Your task to perform on an android device: Open wifi settings Image 0: 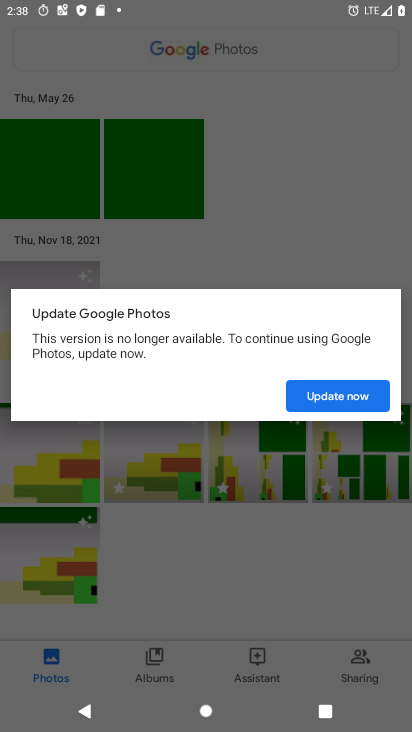
Step 0: press home button
Your task to perform on an android device: Open wifi settings Image 1: 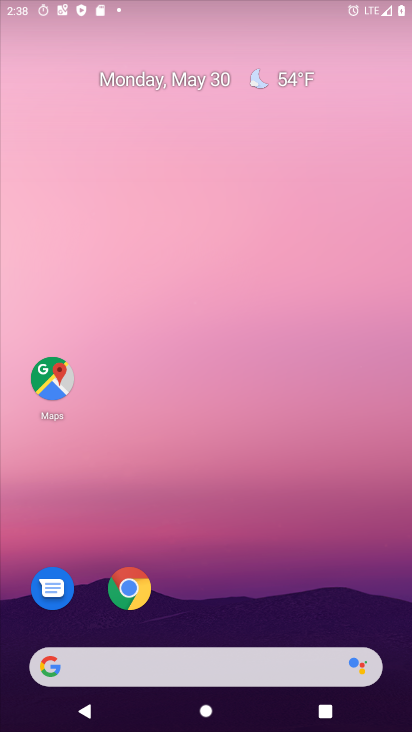
Step 1: drag from (256, 541) to (320, 54)
Your task to perform on an android device: Open wifi settings Image 2: 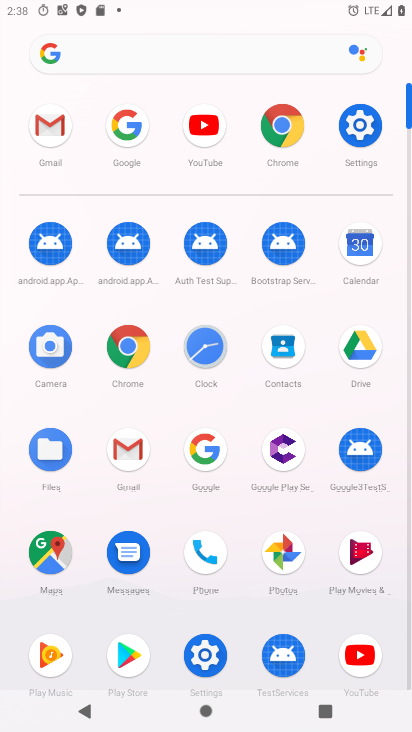
Step 2: click (354, 128)
Your task to perform on an android device: Open wifi settings Image 3: 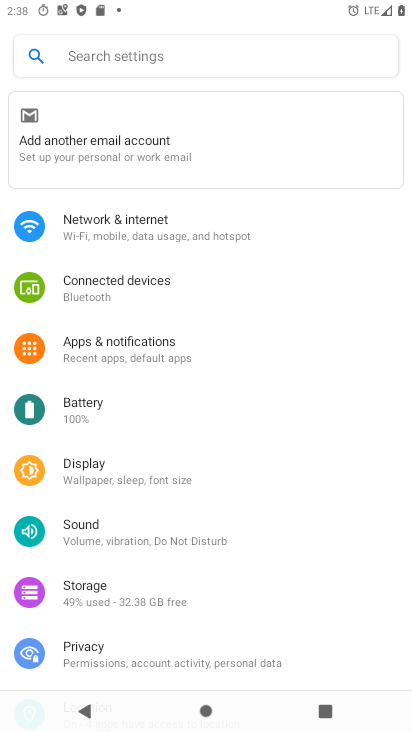
Step 3: click (144, 229)
Your task to perform on an android device: Open wifi settings Image 4: 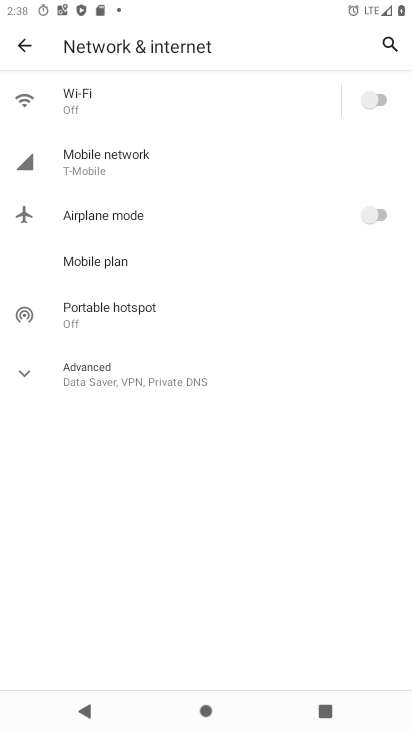
Step 4: click (116, 102)
Your task to perform on an android device: Open wifi settings Image 5: 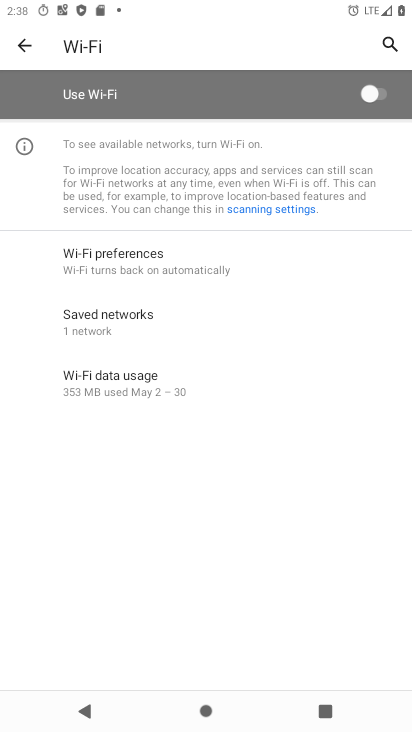
Step 5: click (383, 90)
Your task to perform on an android device: Open wifi settings Image 6: 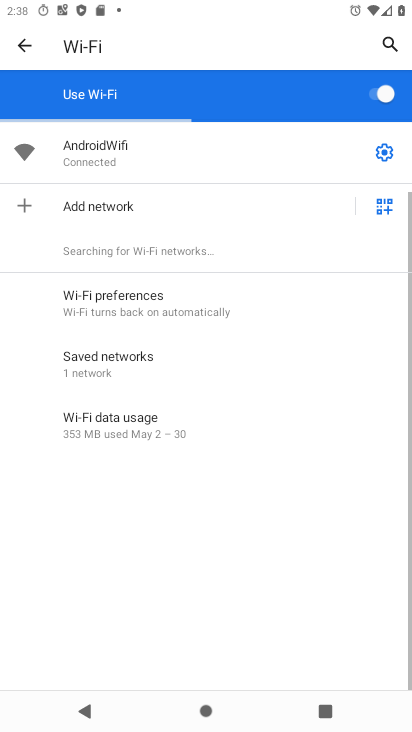
Step 6: click (173, 142)
Your task to perform on an android device: Open wifi settings Image 7: 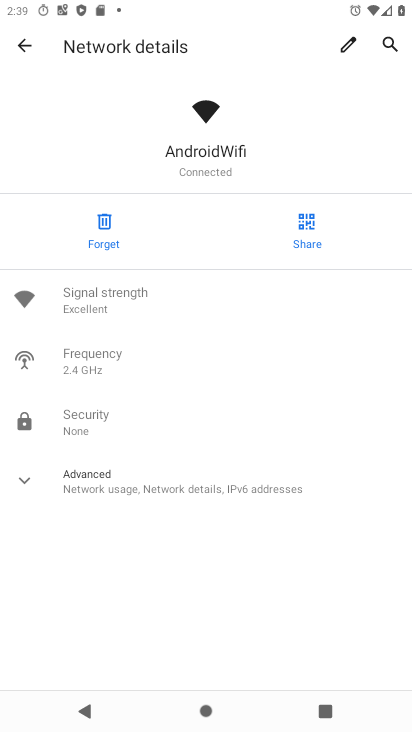
Step 7: task complete